Your task to perform on an android device: What's on my calendar tomorrow? Image 0: 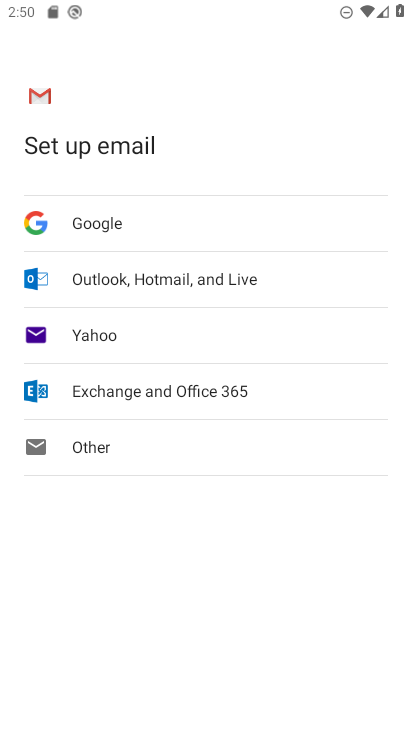
Step 0: press home button
Your task to perform on an android device: What's on my calendar tomorrow? Image 1: 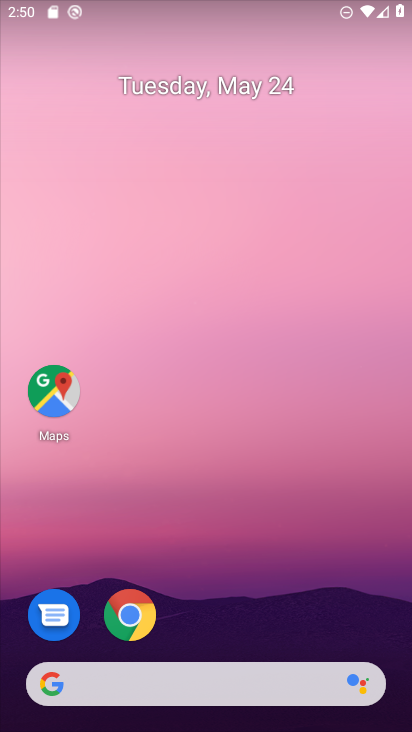
Step 1: drag from (255, 650) to (321, 203)
Your task to perform on an android device: What's on my calendar tomorrow? Image 2: 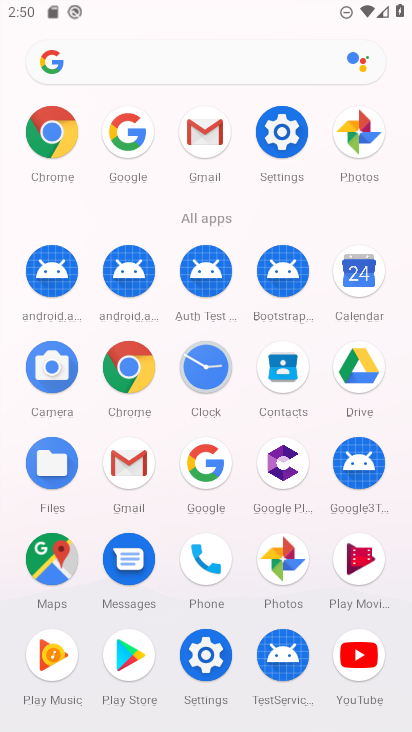
Step 2: click (370, 278)
Your task to perform on an android device: What's on my calendar tomorrow? Image 3: 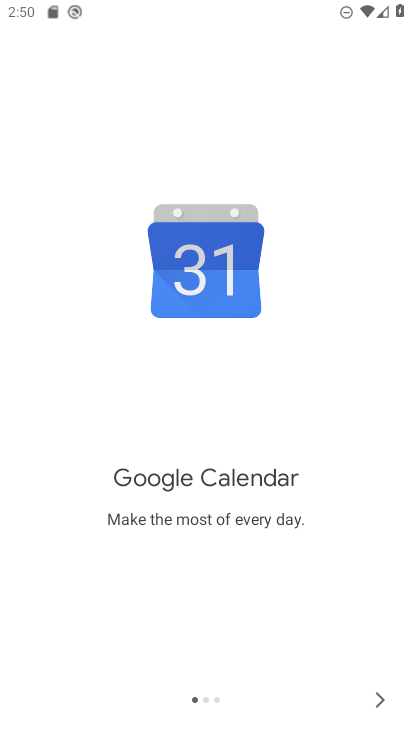
Step 3: click (378, 700)
Your task to perform on an android device: What's on my calendar tomorrow? Image 4: 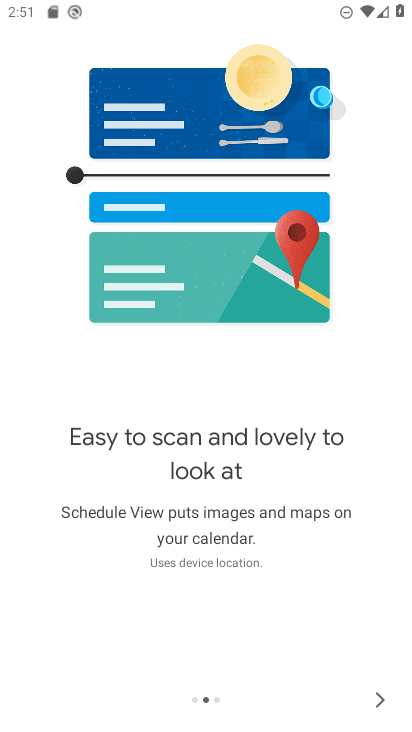
Step 4: click (378, 701)
Your task to perform on an android device: What's on my calendar tomorrow? Image 5: 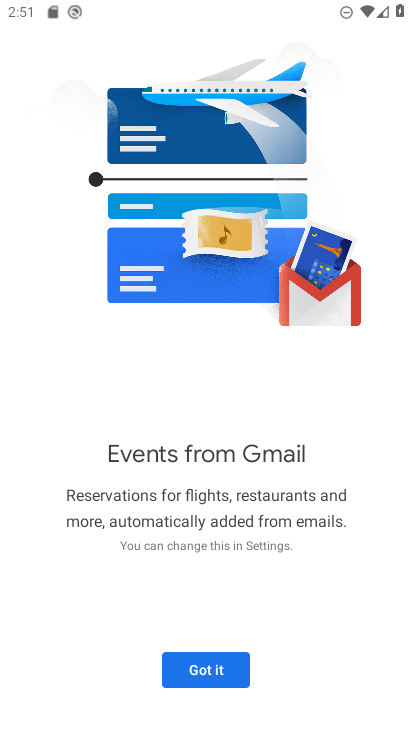
Step 5: click (234, 676)
Your task to perform on an android device: What's on my calendar tomorrow? Image 6: 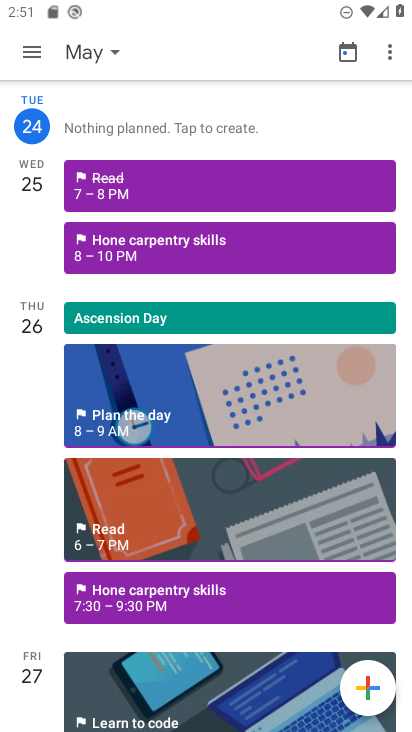
Step 6: click (112, 59)
Your task to perform on an android device: What's on my calendar tomorrow? Image 7: 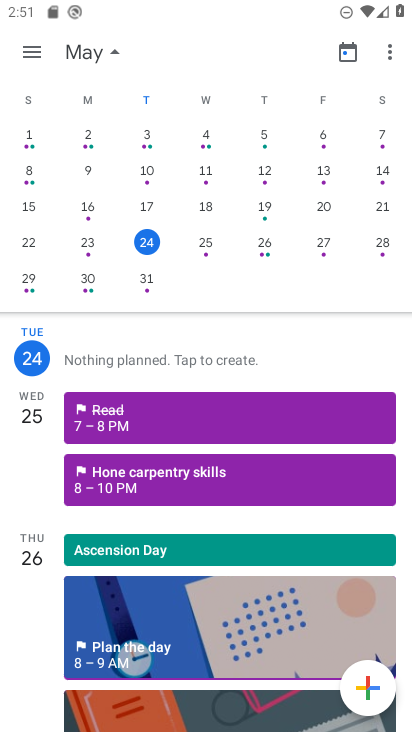
Step 7: click (215, 249)
Your task to perform on an android device: What's on my calendar tomorrow? Image 8: 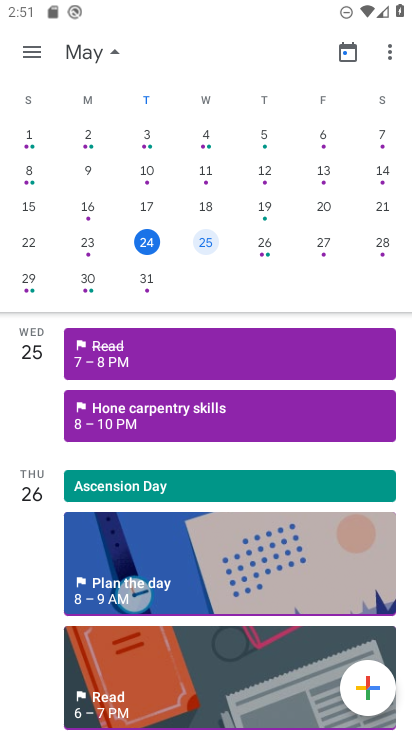
Step 8: task complete